Your task to perform on an android device: Open the music app Image 0: 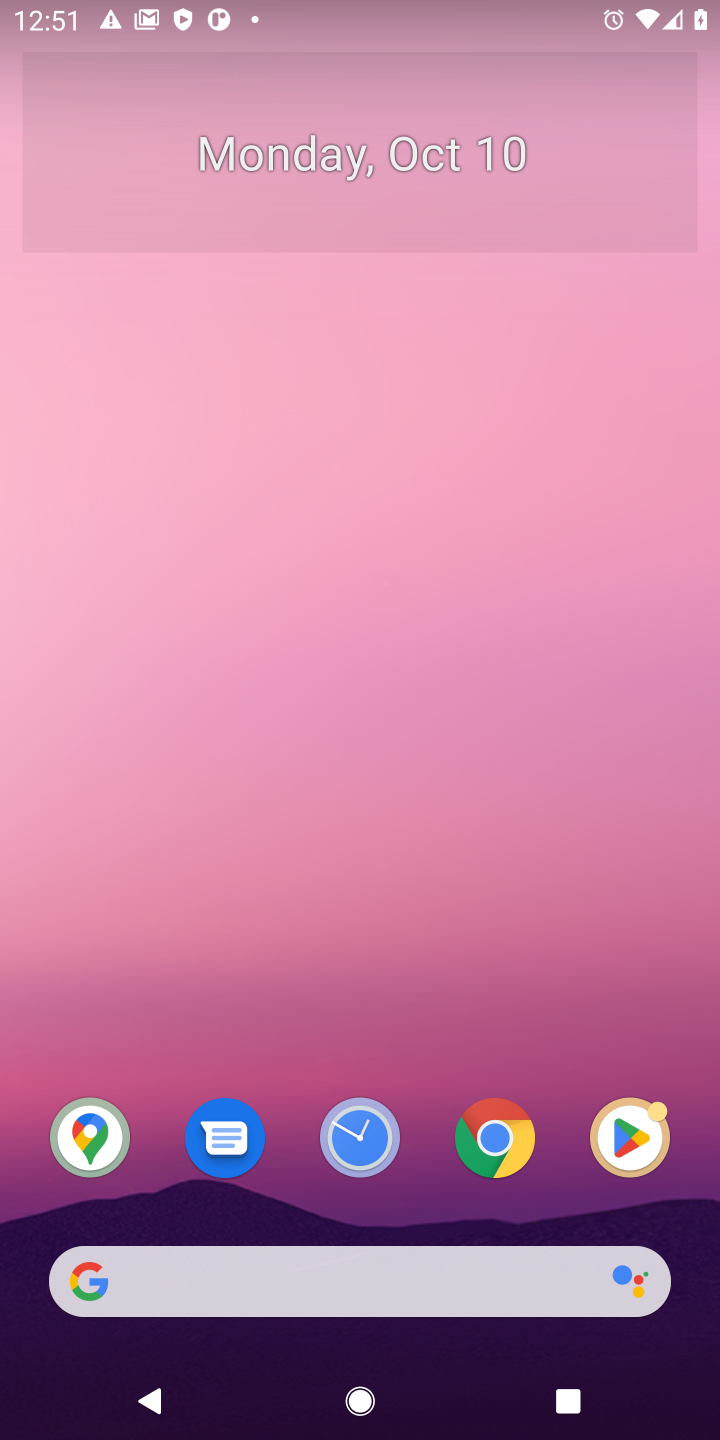
Step 0: drag from (472, 1235) to (209, 183)
Your task to perform on an android device: Open the music app Image 1: 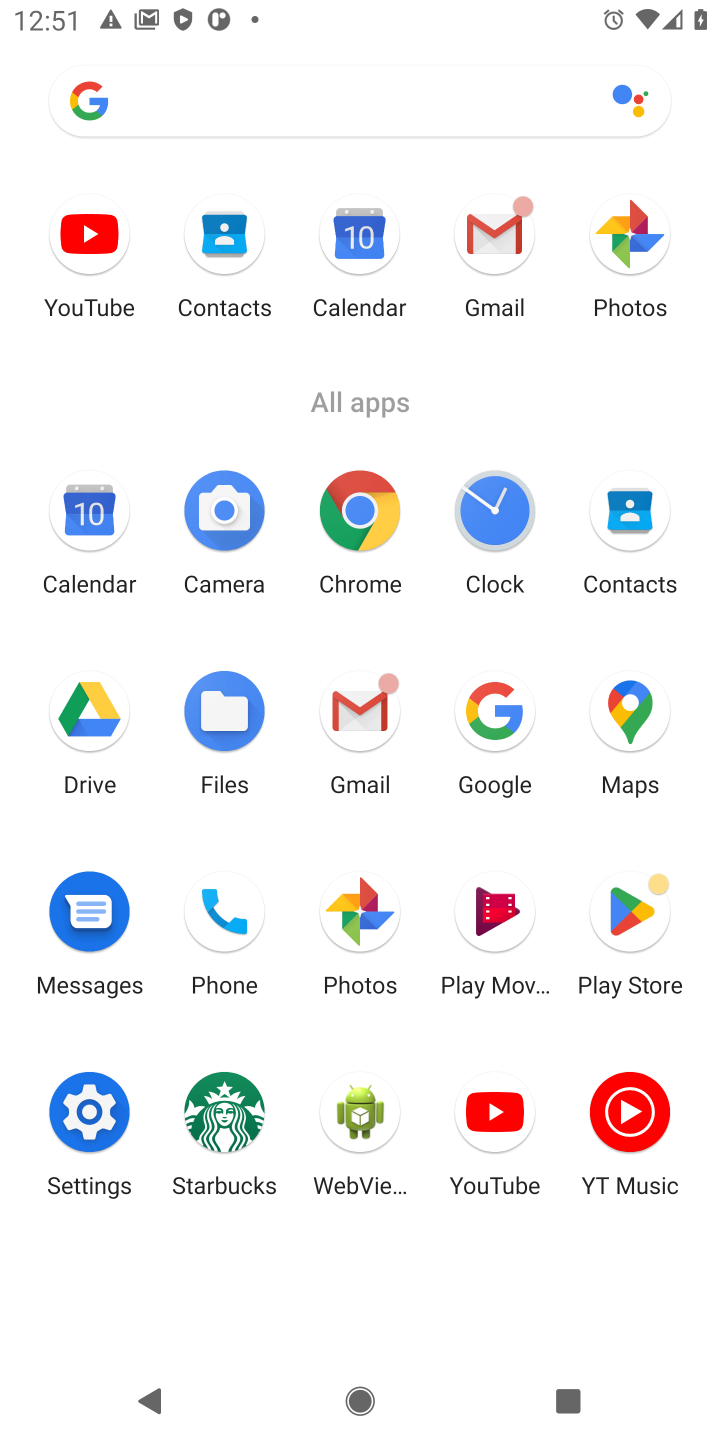
Step 1: click (627, 1137)
Your task to perform on an android device: Open the music app Image 2: 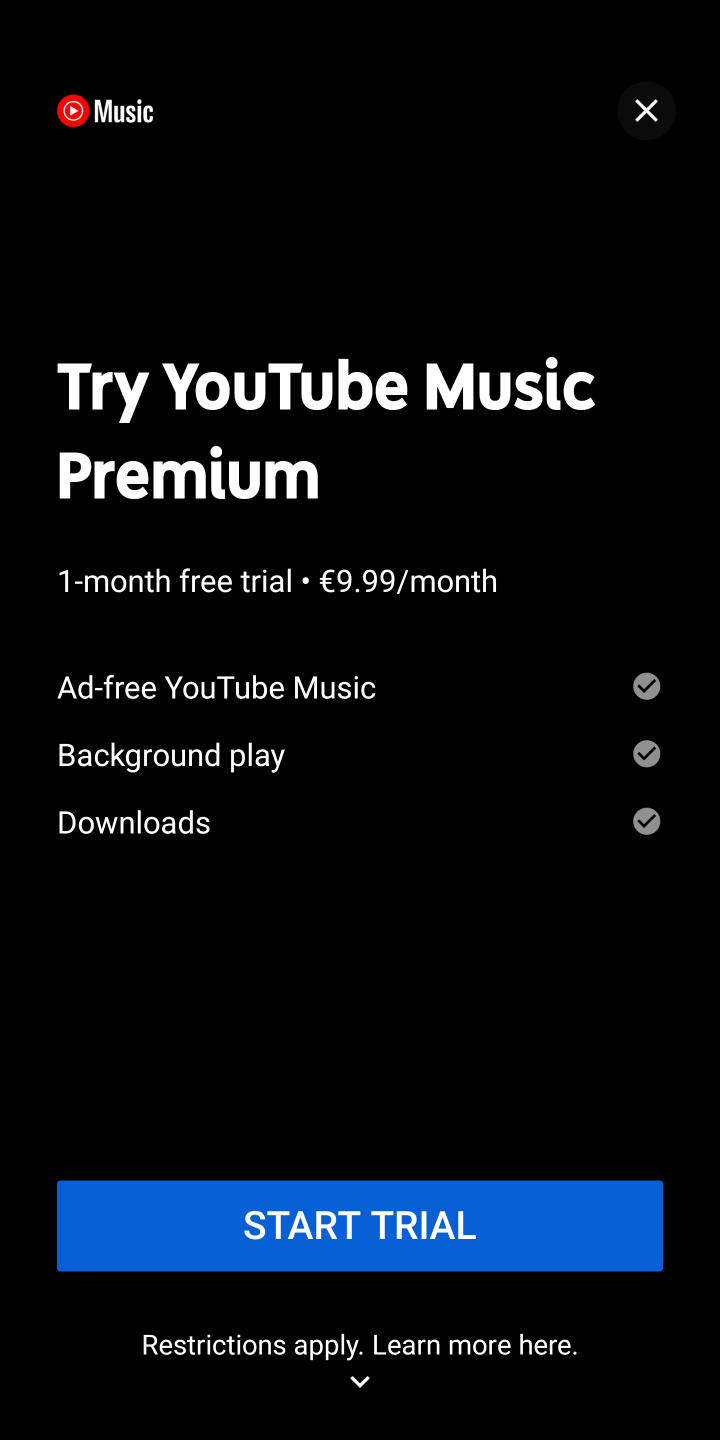
Step 2: click (642, 99)
Your task to perform on an android device: Open the music app Image 3: 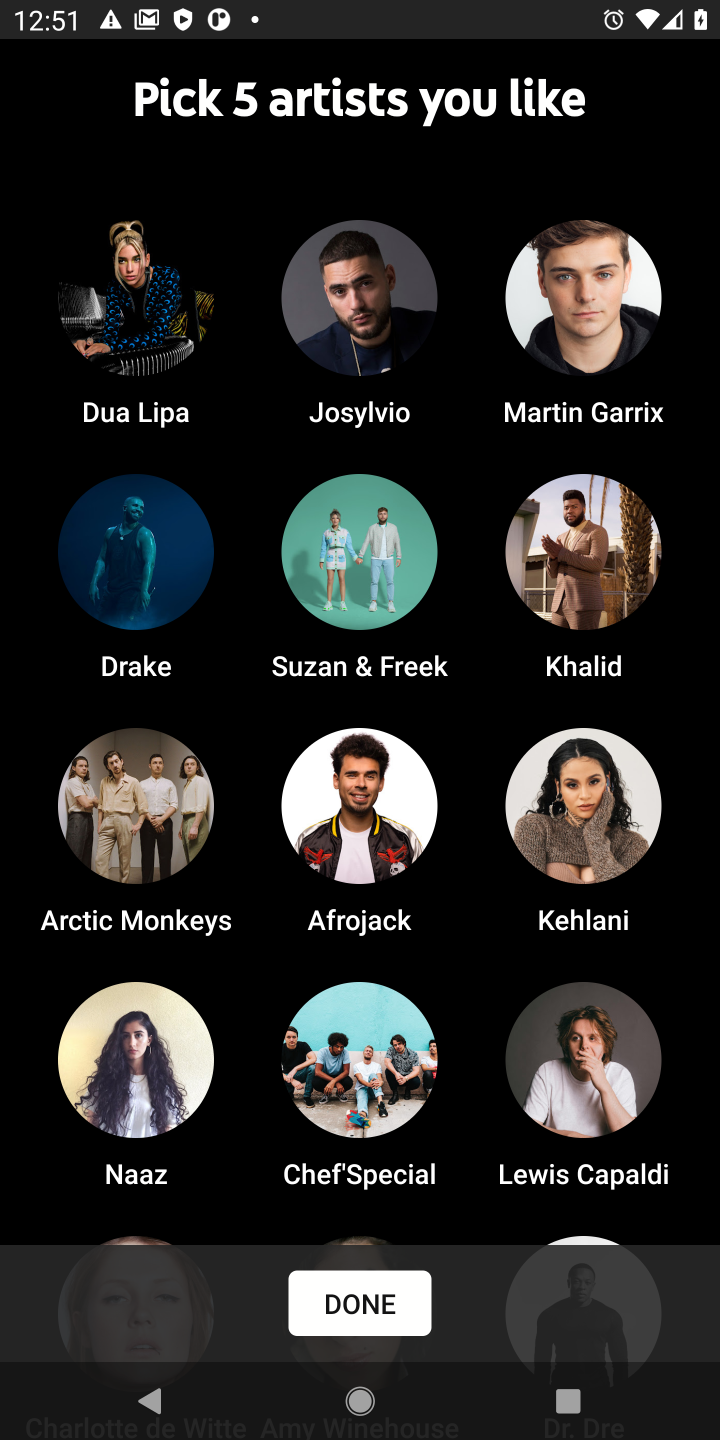
Step 3: task complete